Your task to perform on an android device: Open the calendar app, open the side menu, and click the "Day" option Image 0: 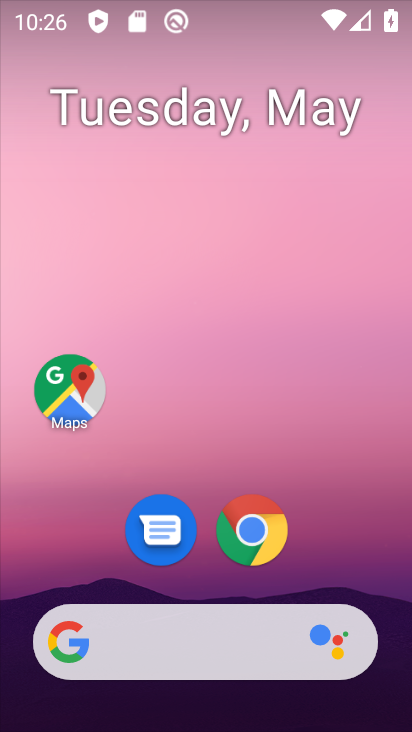
Step 0: drag from (326, 373) to (329, 160)
Your task to perform on an android device: Open the calendar app, open the side menu, and click the "Day" option Image 1: 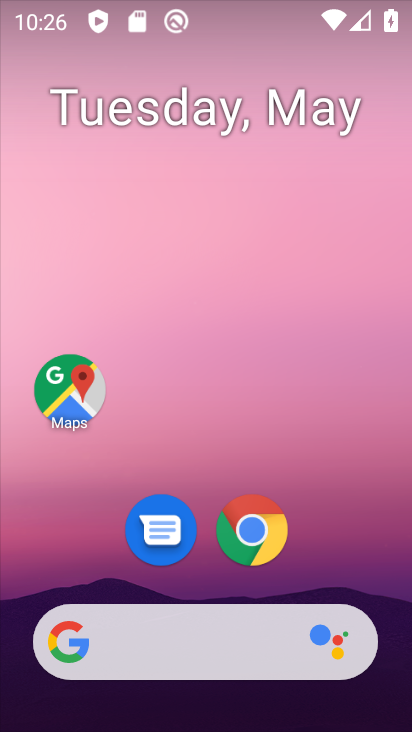
Step 1: drag from (346, 524) to (347, 88)
Your task to perform on an android device: Open the calendar app, open the side menu, and click the "Day" option Image 2: 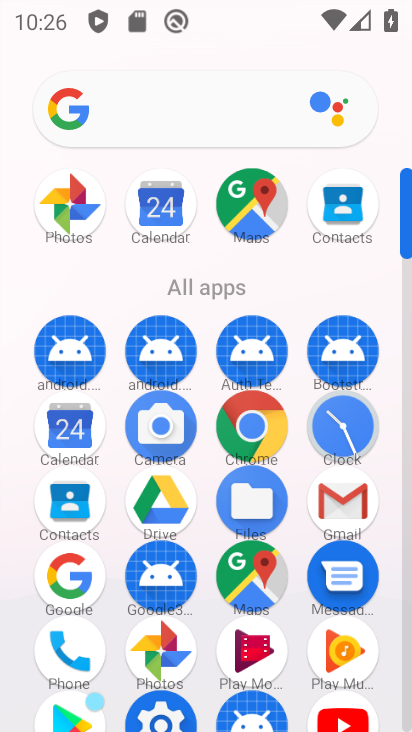
Step 2: click (74, 425)
Your task to perform on an android device: Open the calendar app, open the side menu, and click the "Day" option Image 3: 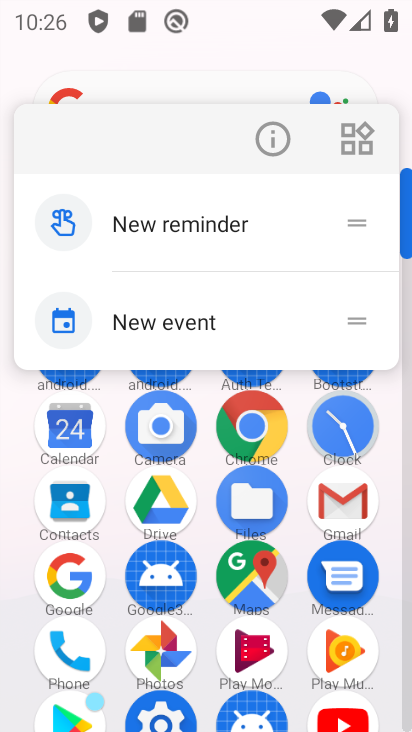
Step 3: click (66, 441)
Your task to perform on an android device: Open the calendar app, open the side menu, and click the "Day" option Image 4: 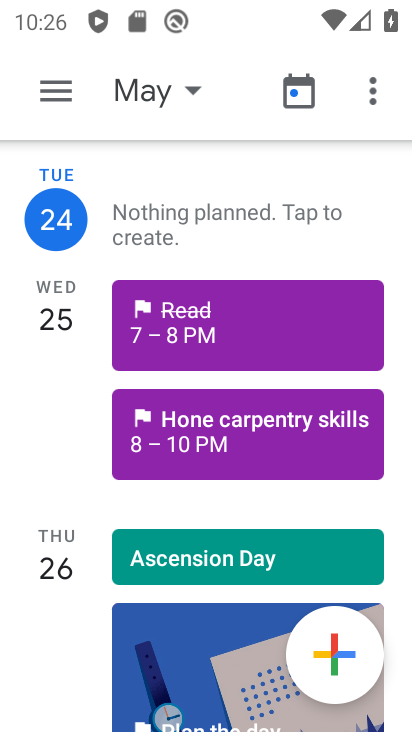
Step 4: click (56, 87)
Your task to perform on an android device: Open the calendar app, open the side menu, and click the "Day" option Image 5: 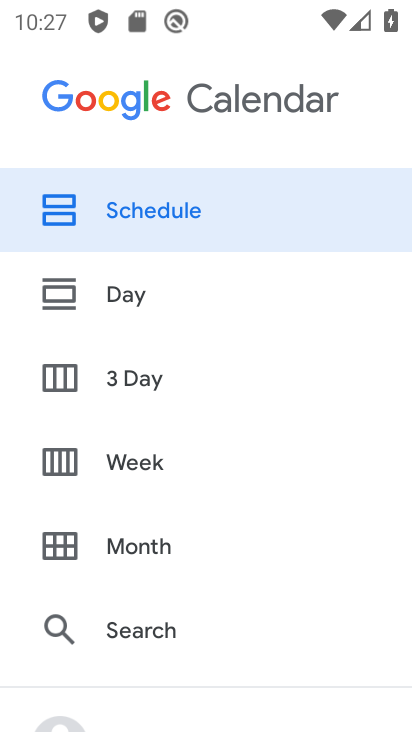
Step 5: click (133, 308)
Your task to perform on an android device: Open the calendar app, open the side menu, and click the "Day" option Image 6: 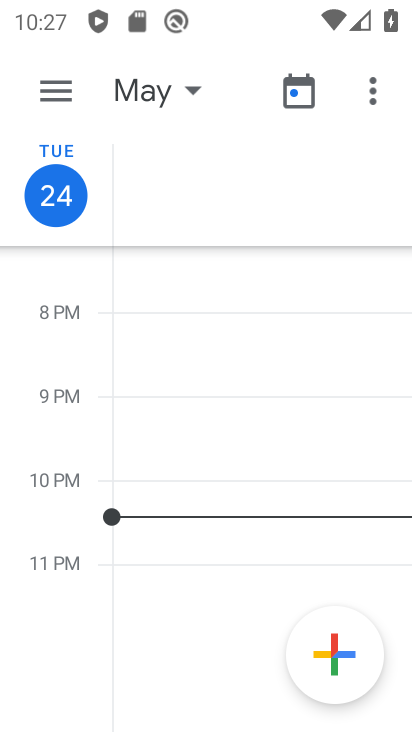
Step 6: task complete